Your task to perform on an android device: turn on bluetooth scan Image 0: 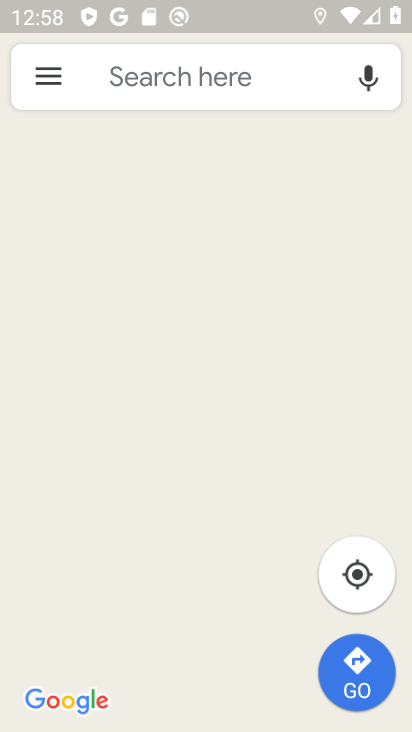
Step 0: press home button
Your task to perform on an android device: turn on bluetooth scan Image 1: 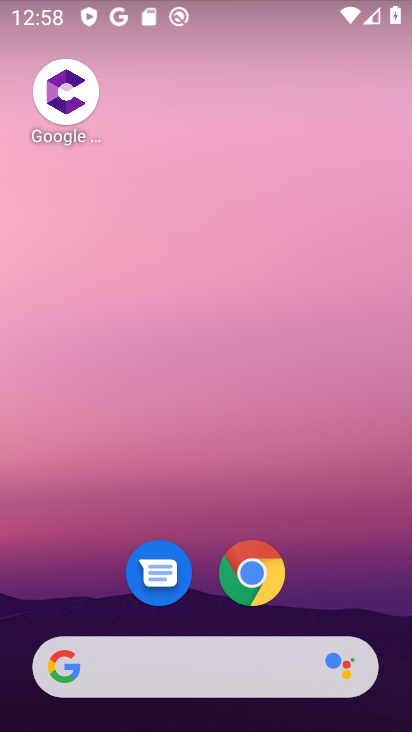
Step 1: drag from (200, 619) to (148, 13)
Your task to perform on an android device: turn on bluetooth scan Image 2: 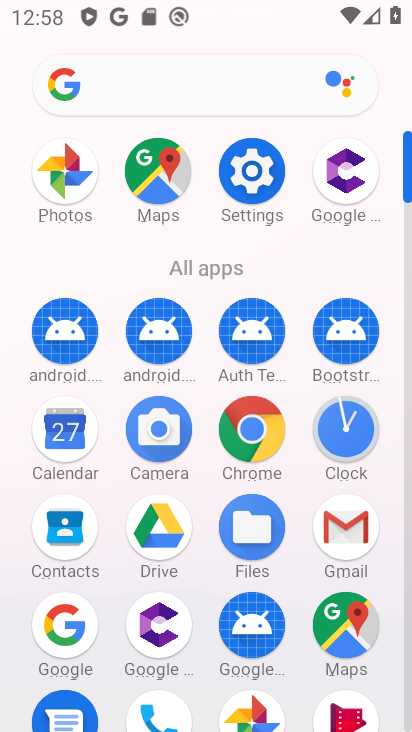
Step 2: click (235, 184)
Your task to perform on an android device: turn on bluetooth scan Image 3: 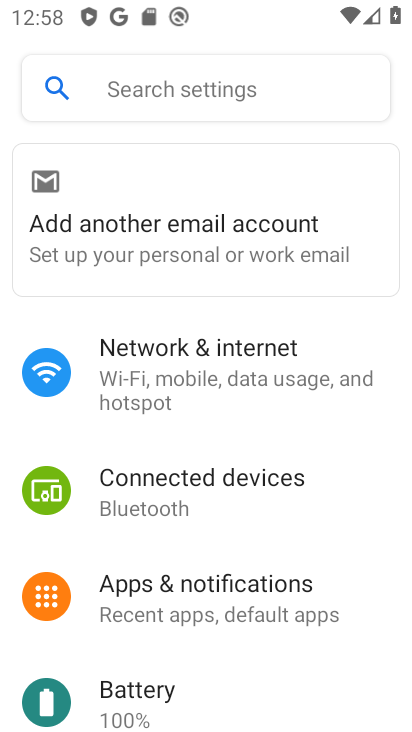
Step 3: drag from (193, 685) to (179, 275)
Your task to perform on an android device: turn on bluetooth scan Image 4: 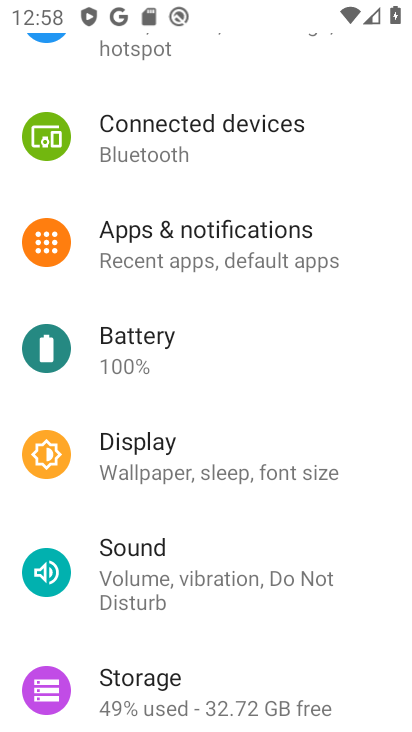
Step 4: drag from (259, 554) to (246, 113)
Your task to perform on an android device: turn on bluetooth scan Image 5: 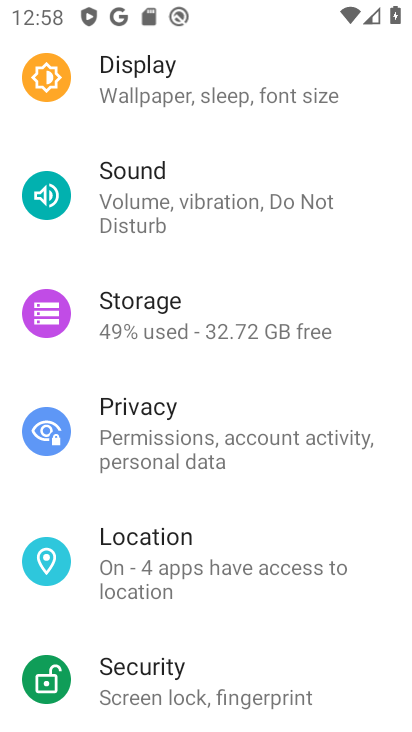
Step 5: click (216, 562)
Your task to perform on an android device: turn on bluetooth scan Image 6: 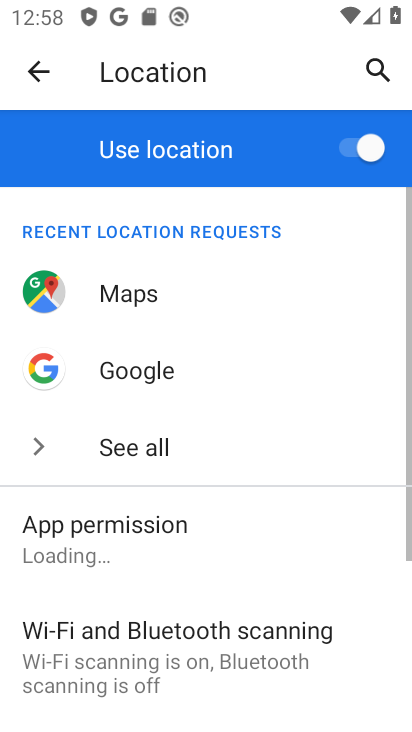
Step 6: drag from (221, 530) to (238, 232)
Your task to perform on an android device: turn on bluetooth scan Image 7: 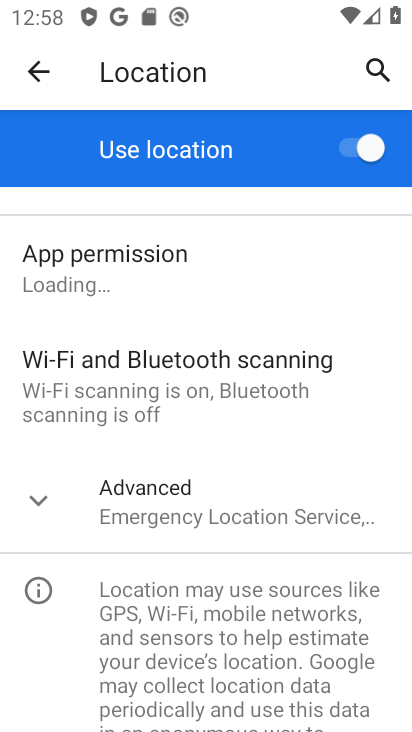
Step 7: click (208, 387)
Your task to perform on an android device: turn on bluetooth scan Image 8: 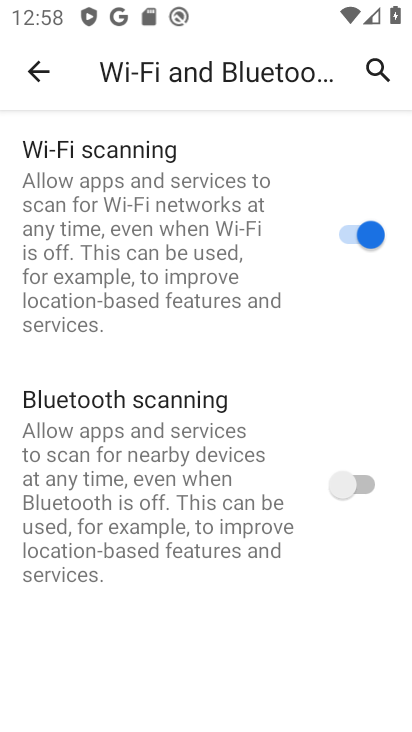
Step 8: click (344, 496)
Your task to perform on an android device: turn on bluetooth scan Image 9: 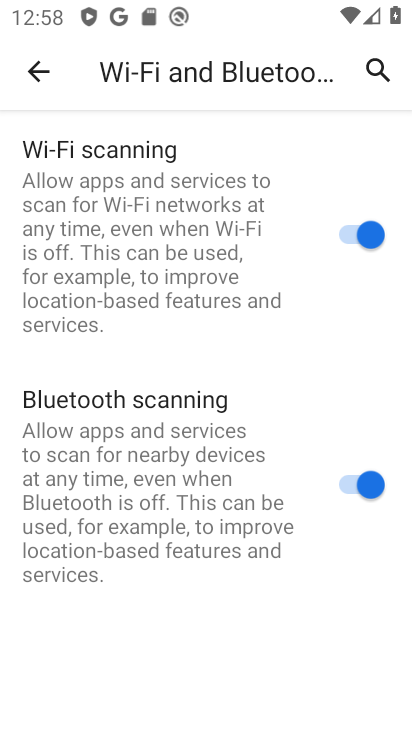
Step 9: task complete